Your task to perform on an android device: Go to eBay Image 0: 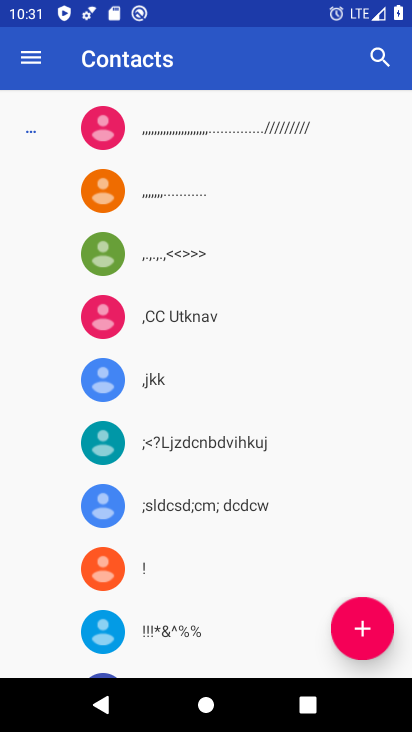
Step 0: press home button
Your task to perform on an android device: Go to eBay Image 1: 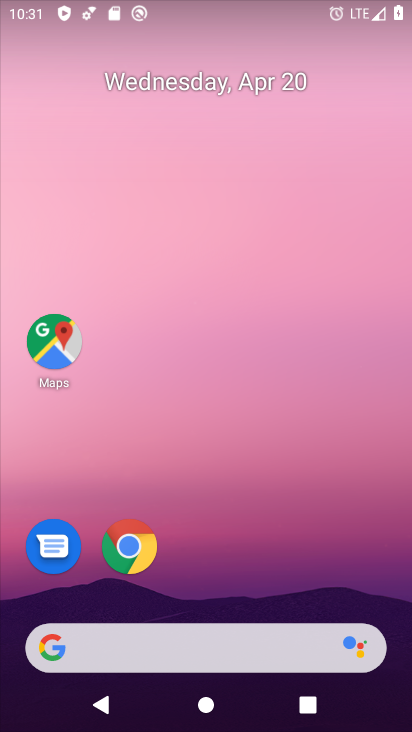
Step 1: click (132, 555)
Your task to perform on an android device: Go to eBay Image 2: 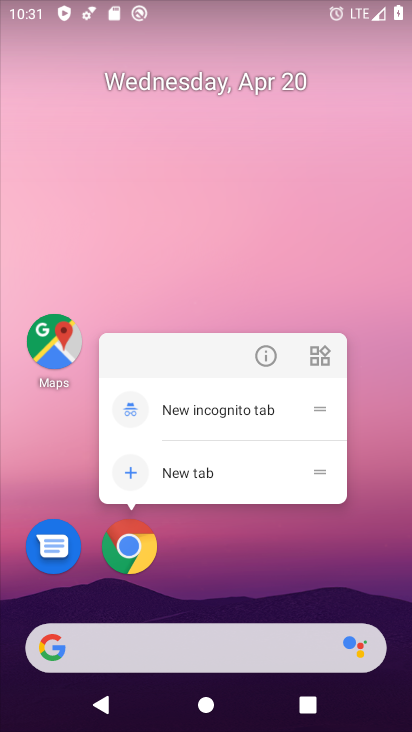
Step 2: click (132, 555)
Your task to perform on an android device: Go to eBay Image 3: 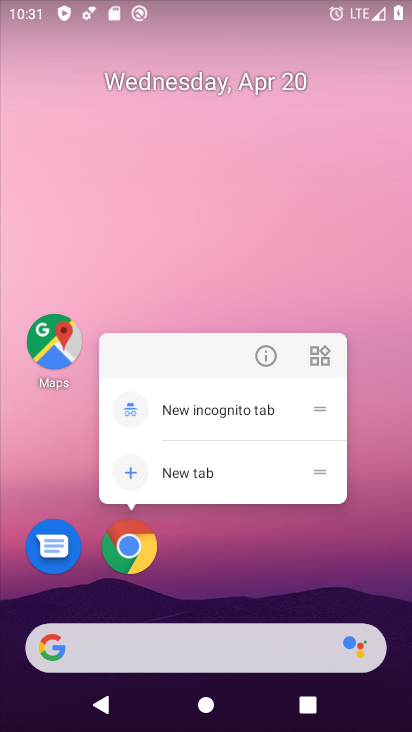
Step 3: click (132, 555)
Your task to perform on an android device: Go to eBay Image 4: 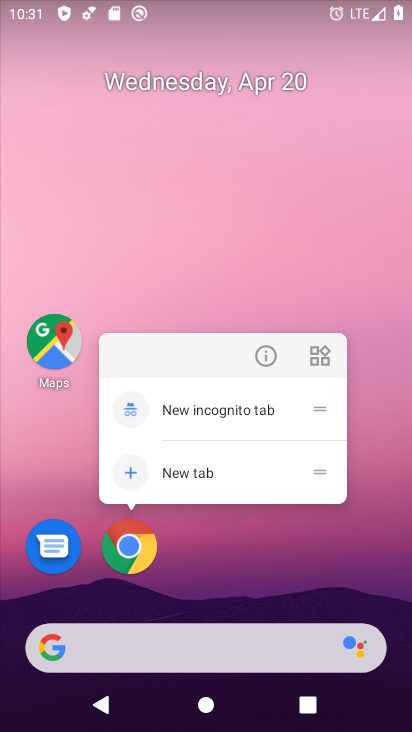
Step 4: click (134, 543)
Your task to perform on an android device: Go to eBay Image 5: 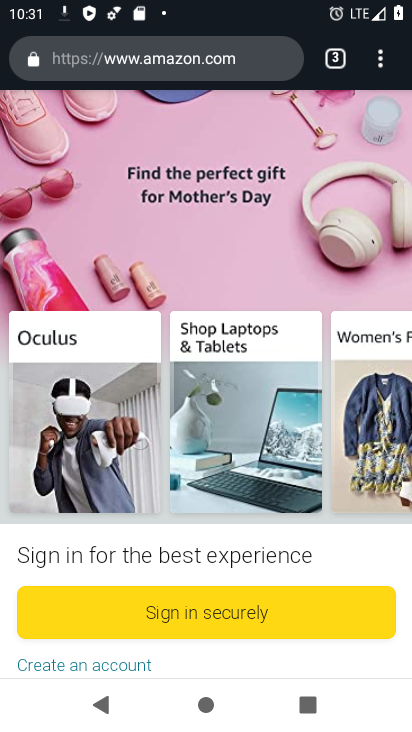
Step 5: click (345, 60)
Your task to perform on an android device: Go to eBay Image 6: 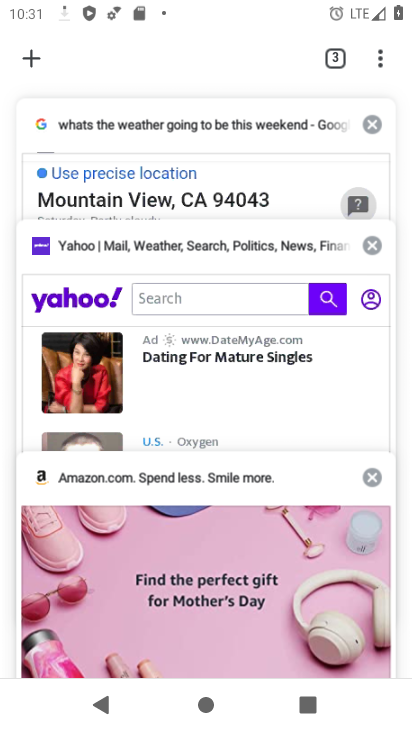
Step 6: click (32, 61)
Your task to perform on an android device: Go to eBay Image 7: 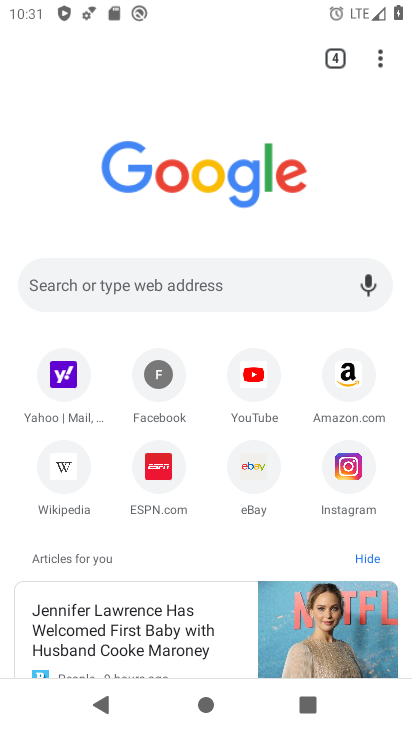
Step 7: click (261, 475)
Your task to perform on an android device: Go to eBay Image 8: 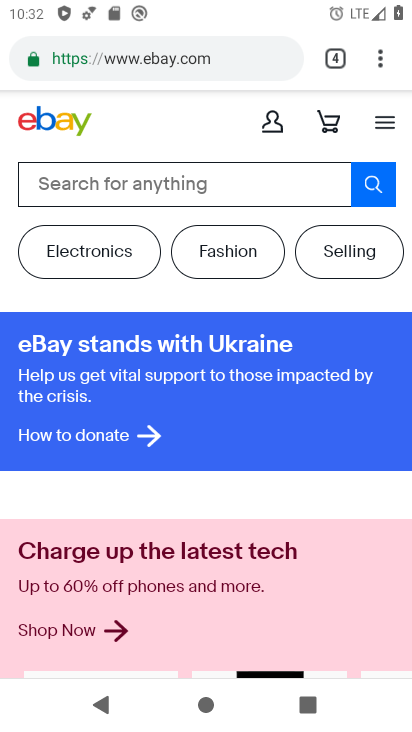
Step 8: task complete